Your task to perform on an android device: Open Youtube and go to the subscriptions tab Image 0: 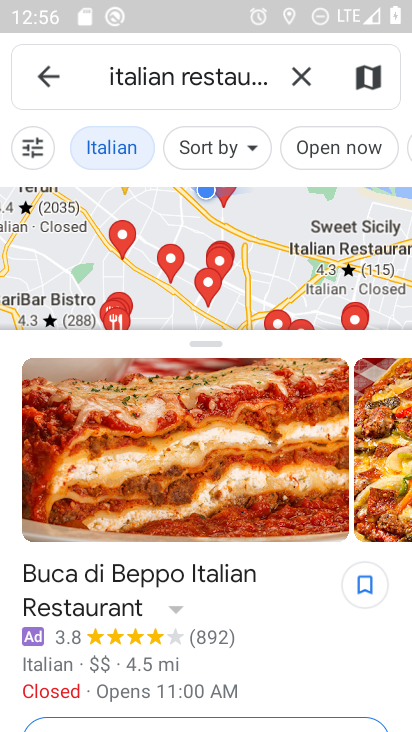
Step 0: press home button
Your task to perform on an android device: Open Youtube and go to the subscriptions tab Image 1: 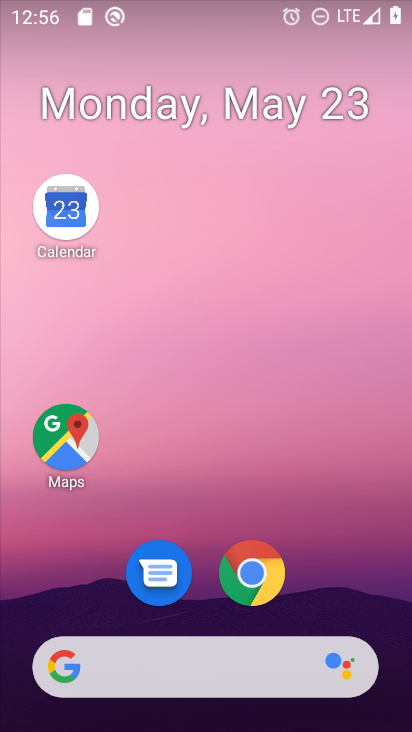
Step 1: drag from (210, 620) to (365, 2)
Your task to perform on an android device: Open Youtube and go to the subscriptions tab Image 2: 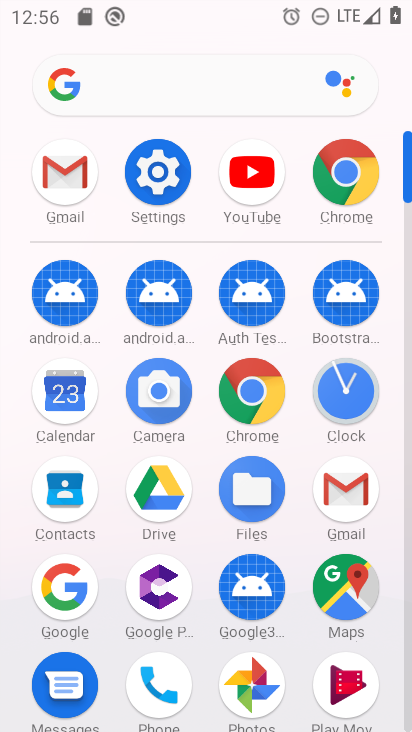
Step 2: drag from (298, 647) to (353, 313)
Your task to perform on an android device: Open Youtube and go to the subscriptions tab Image 3: 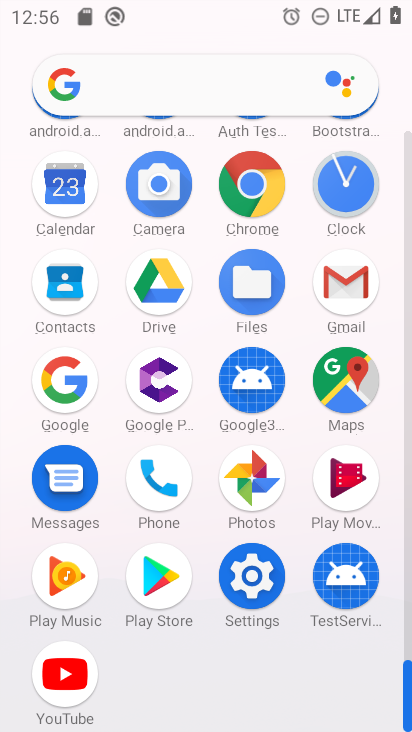
Step 3: click (71, 675)
Your task to perform on an android device: Open Youtube and go to the subscriptions tab Image 4: 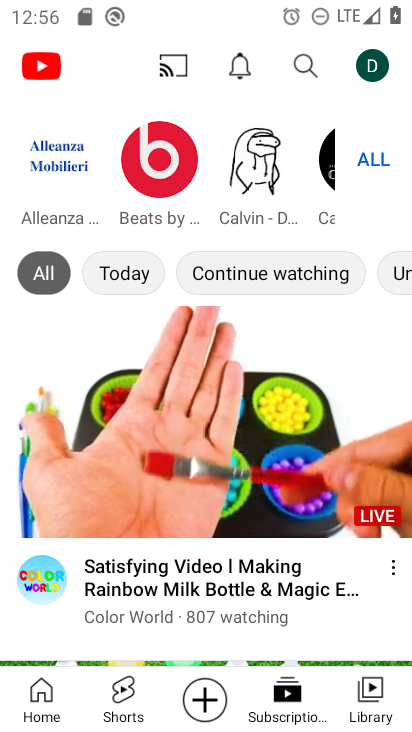
Step 4: click (295, 711)
Your task to perform on an android device: Open Youtube and go to the subscriptions tab Image 5: 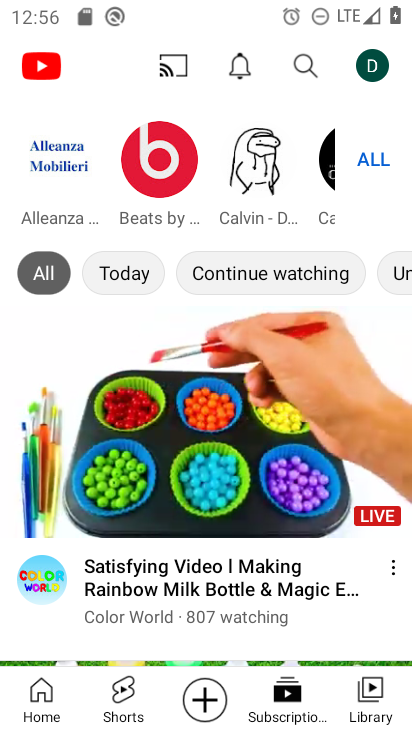
Step 5: task complete